Your task to perform on an android device: turn off data saver in the chrome app Image 0: 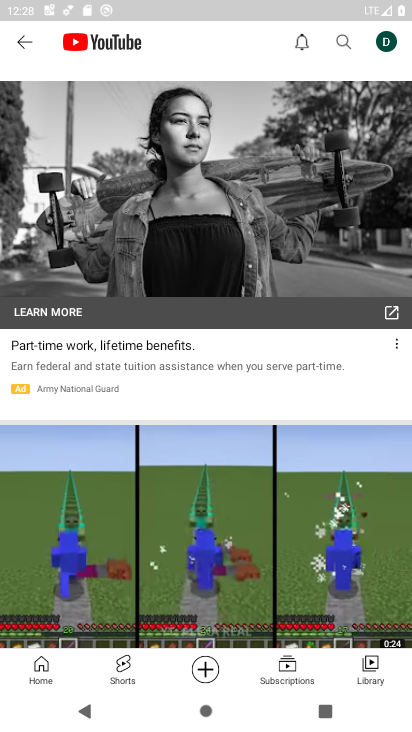
Step 0: press home button
Your task to perform on an android device: turn off data saver in the chrome app Image 1: 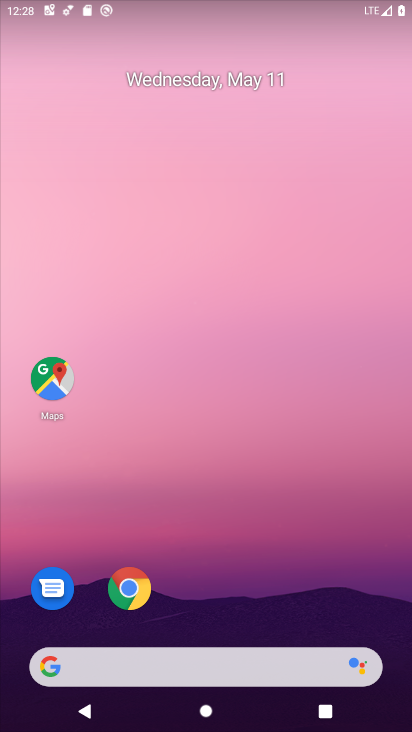
Step 1: click (121, 593)
Your task to perform on an android device: turn off data saver in the chrome app Image 2: 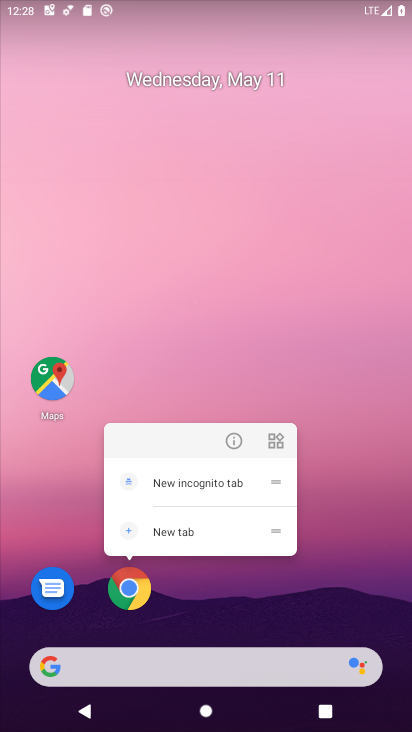
Step 2: click (126, 583)
Your task to perform on an android device: turn off data saver in the chrome app Image 3: 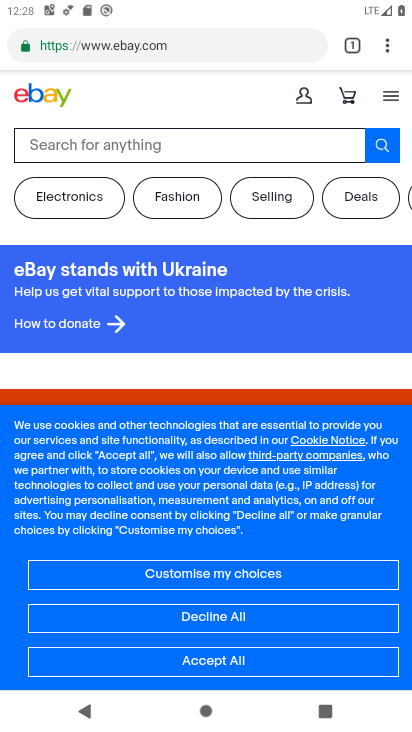
Step 3: click (392, 43)
Your task to perform on an android device: turn off data saver in the chrome app Image 4: 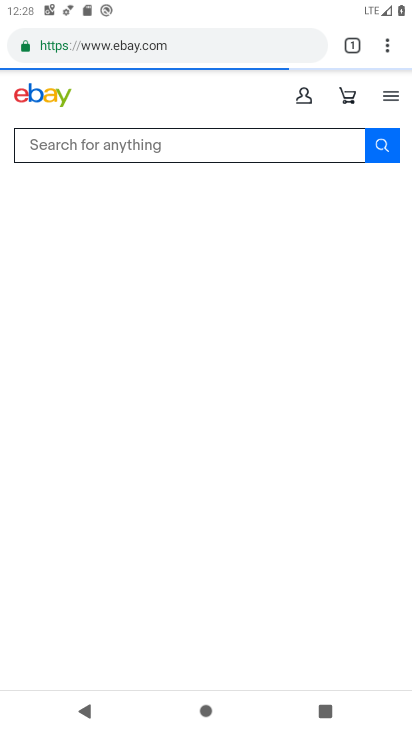
Step 4: click (390, 46)
Your task to perform on an android device: turn off data saver in the chrome app Image 5: 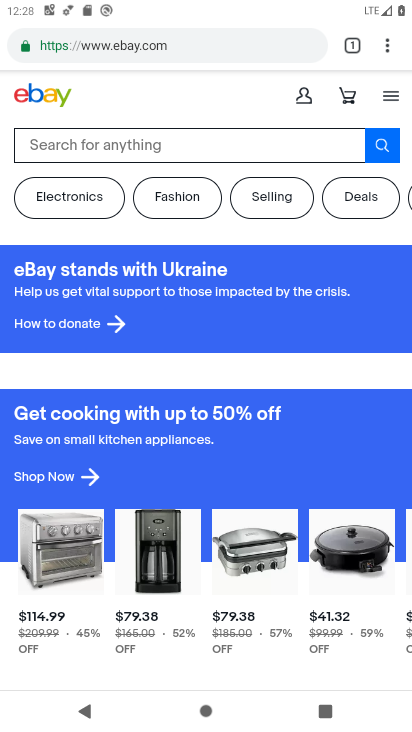
Step 5: click (389, 46)
Your task to perform on an android device: turn off data saver in the chrome app Image 6: 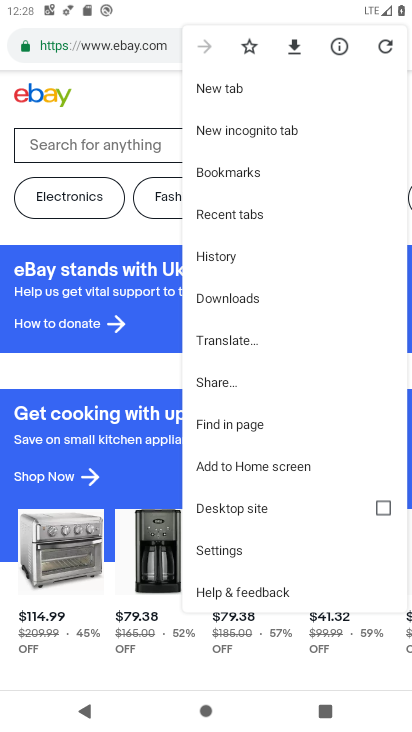
Step 6: click (237, 551)
Your task to perform on an android device: turn off data saver in the chrome app Image 7: 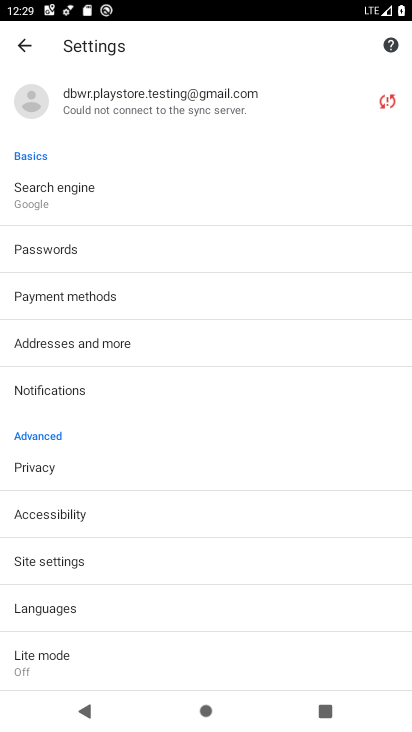
Step 7: click (57, 663)
Your task to perform on an android device: turn off data saver in the chrome app Image 8: 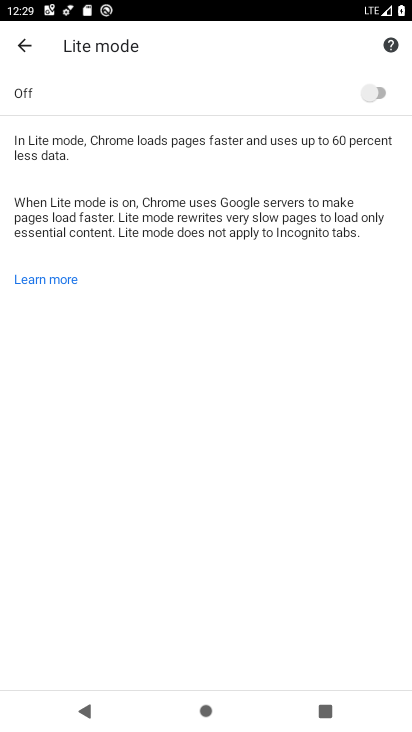
Step 8: task complete